Your task to perform on an android device: Open battery settings Image 0: 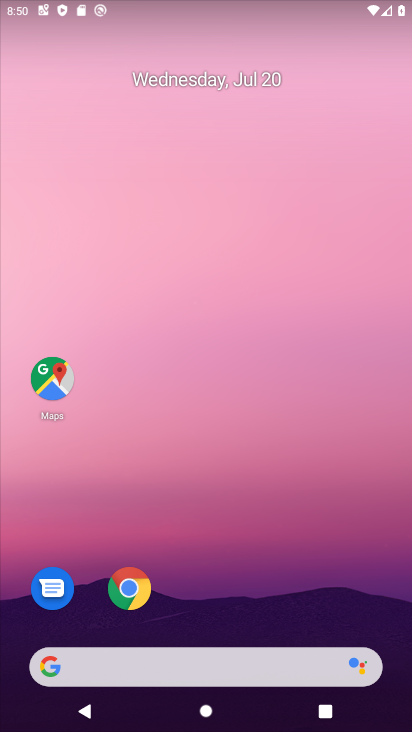
Step 0: drag from (181, 628) to (186, 206)
Your task to perform on an android device: Open battery settings Image 1: 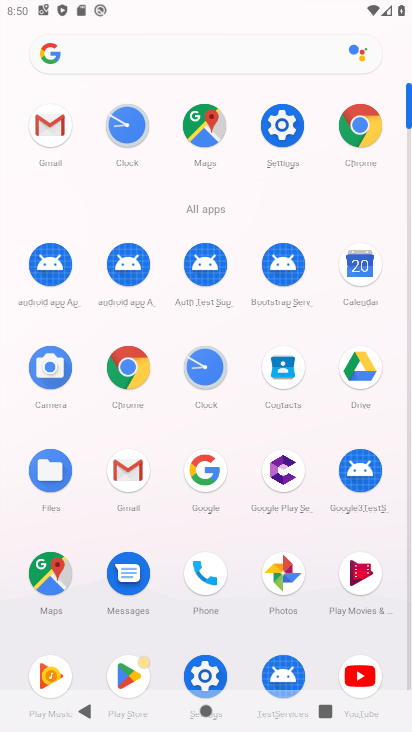
Step 1: click (278, 124)
Your task to perform on an android device: Open battery settings Image 2: 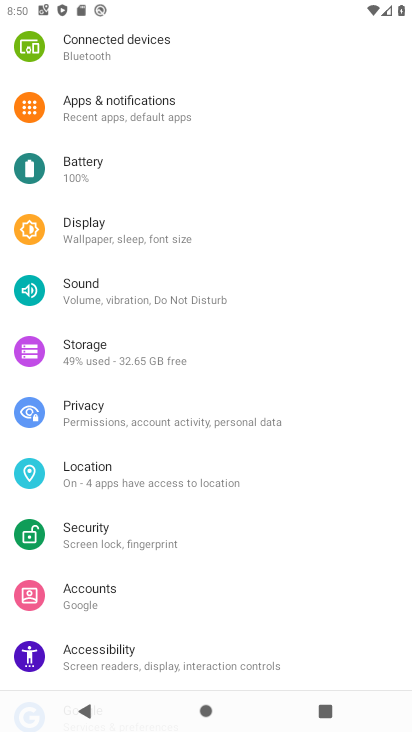
Step 2: click (97, 182)
Your task to perform on an android device: Open battery settings Image 3: 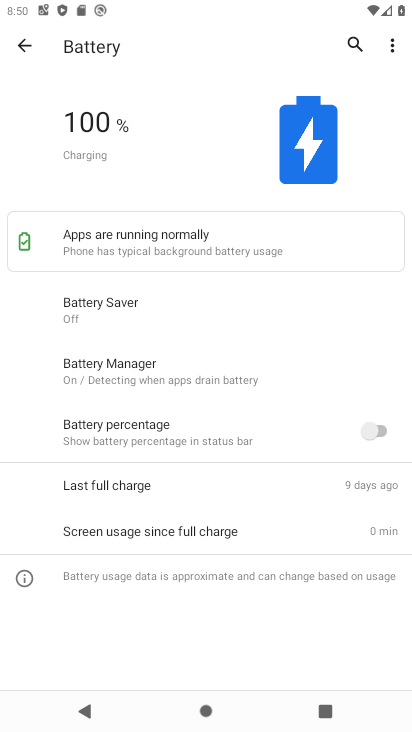
Step 3: task complete